Your task to perform on an android device: change text size in settings app Image 0: 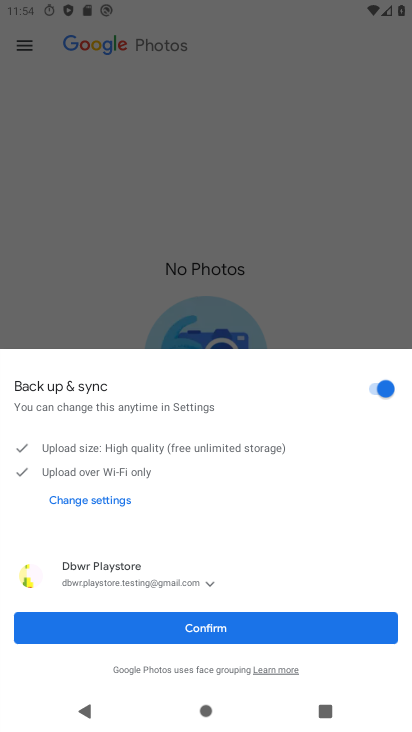
Step 0: click (210, 631)
Your task to perform on an android device: change text size in settings app Image 1: 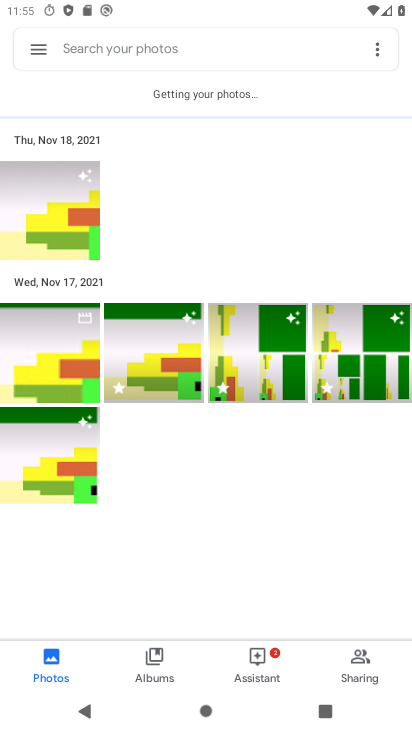
Step 1: press home button
Your task to perform on an android device: change text size in settings app Image 2: 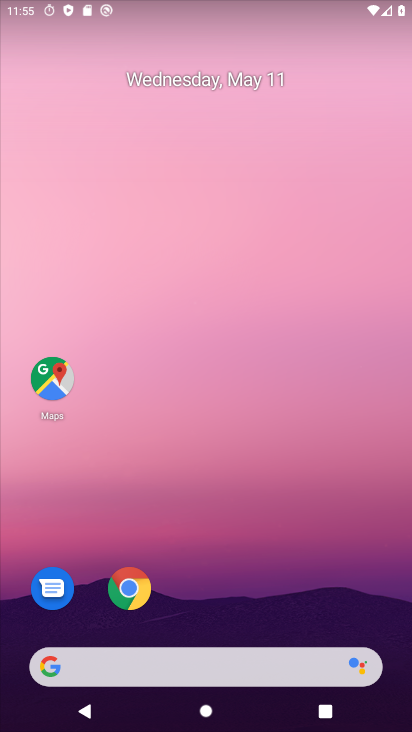
Step 2: drag from (167, 645) to (189, 277)
Your task to perform on an android device: change text size in settings app Image 3: 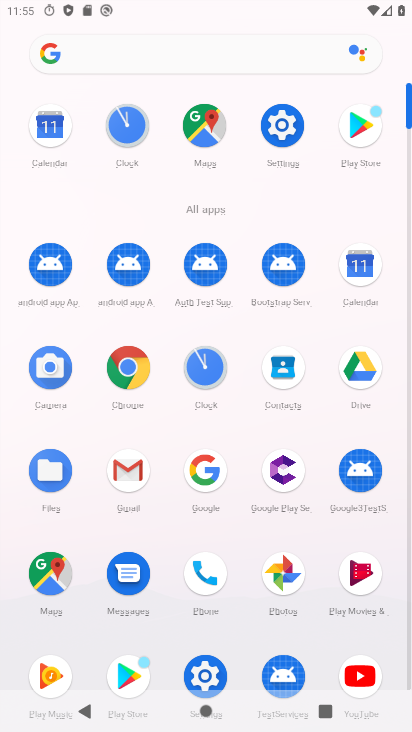
Step 3: click (292, 112)
Your task to perform on an android device: change text size in settings app Image 4: 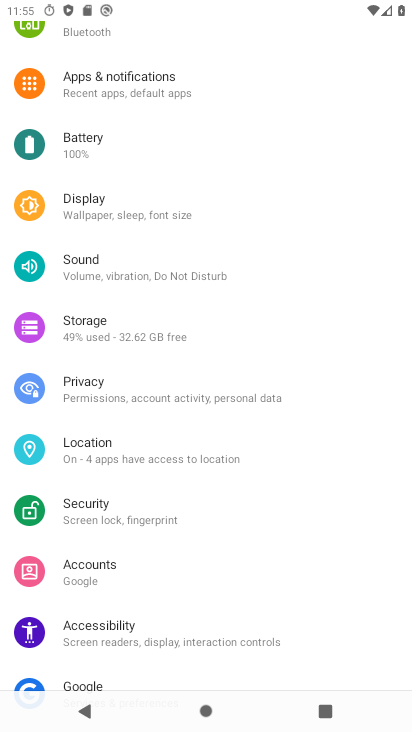
Step 4: drag from (129, 660) to (135, 310)
Your task to perform on an android device: change text size in settings app Image 5: 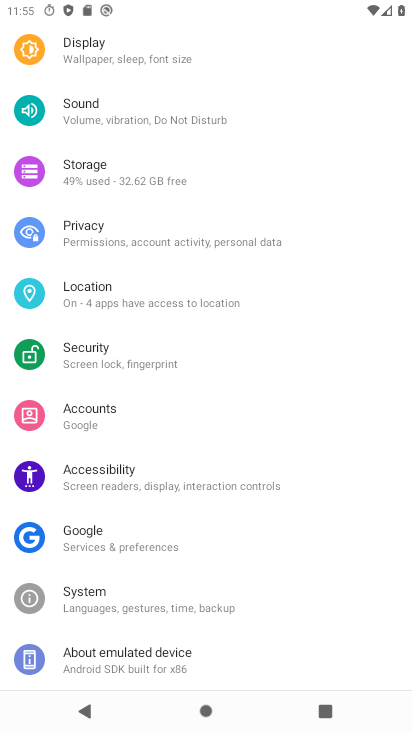
Step 5: click (109, 478)
Your task to perform on an android device: change text size in settings app Image 6: 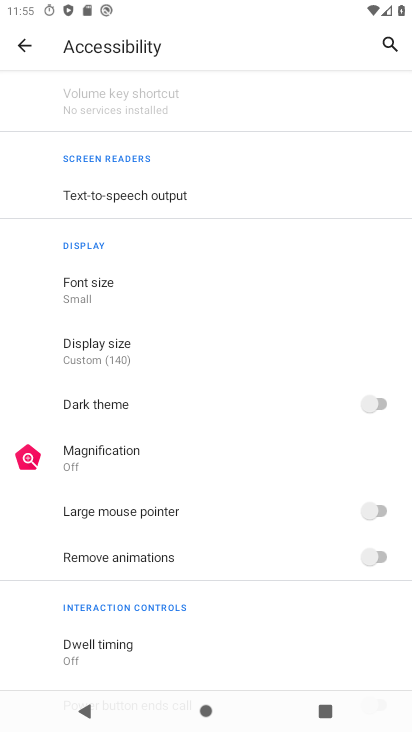
Step 6: click (105, 282)
Your task to perform on an android device: change text size in settings app Image 7: 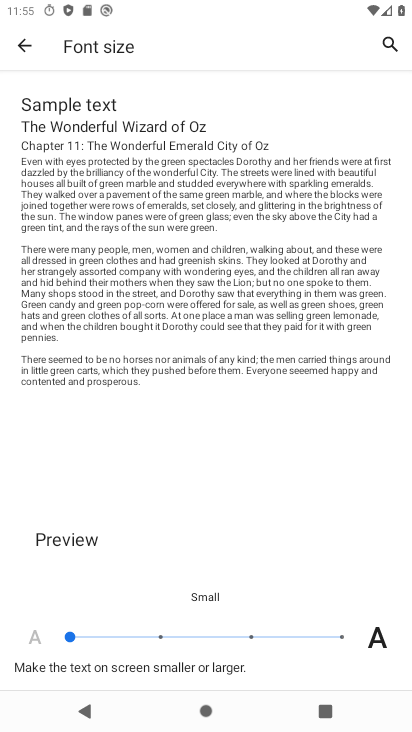
Step 7: click (161, 632)
Your task to perform on an android device: change text size in settings app Image 8: 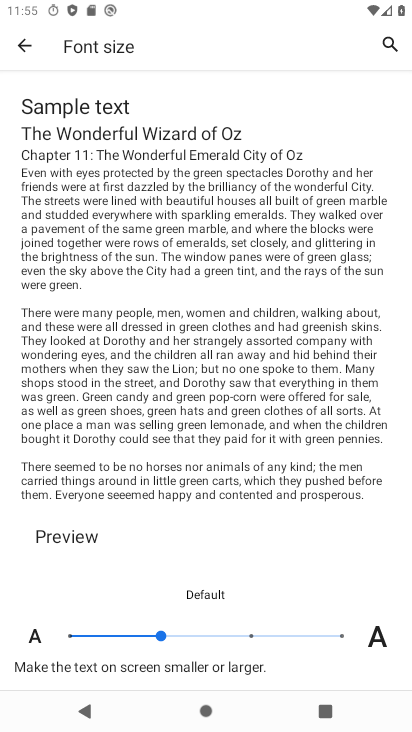
Step 8: task complete